Your task to perform on an android device: Open Google Chrome and click the shortcut for Amazon.com Image 0: 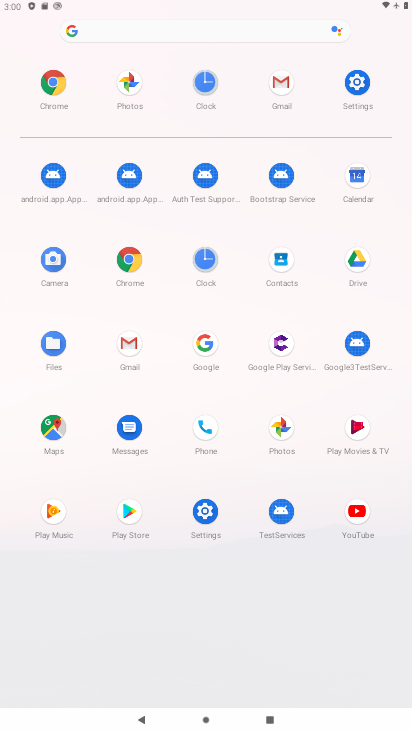
Step 0: click (124, 271)
Your task to perform on an android device: Open Google Chrome and click the shortcut for Amazon.com Image 1: 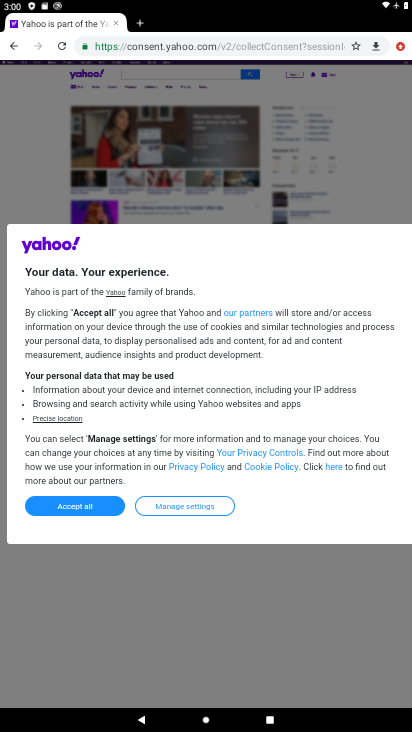
Step 1: click (139, 23)
Your task to perform on an android device: Open Google Chrome and click the shortcut for Amazon.com Image 2: 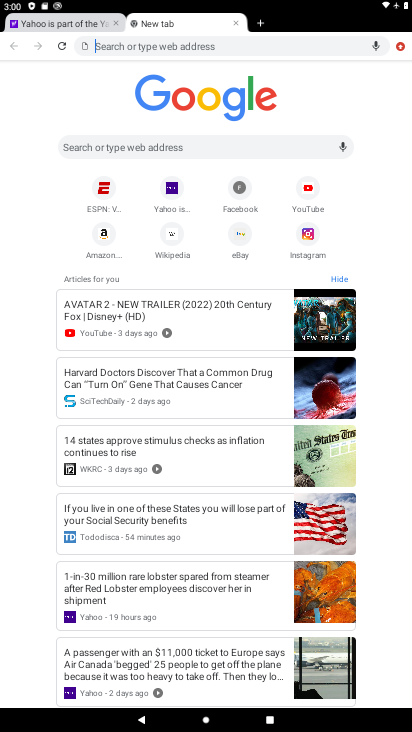
Step 2: click (96, 248)
Your task to perform on an android device: Open Google Chrome and click the shortcut for Amazon.com Image 3: 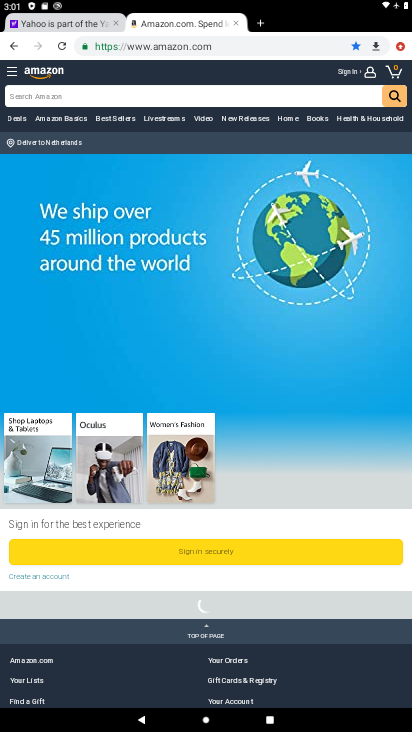
Step 3: task complete